Your task to perform on an android device: change the clock display to show seconds Image 0: 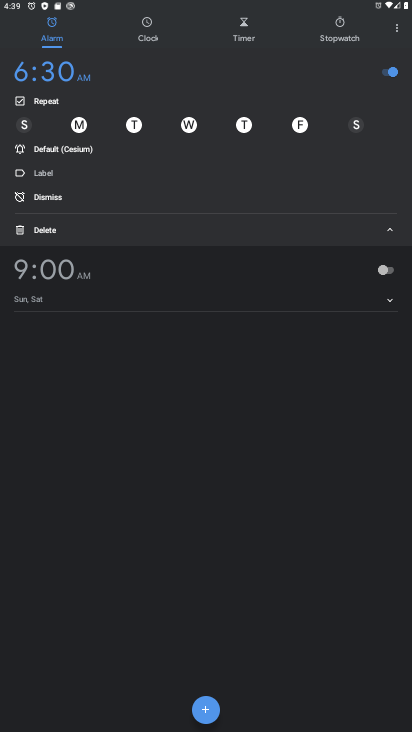
Step 0: press home button
Your task to perform on an android device: change the clock display to show seconds Image 1: 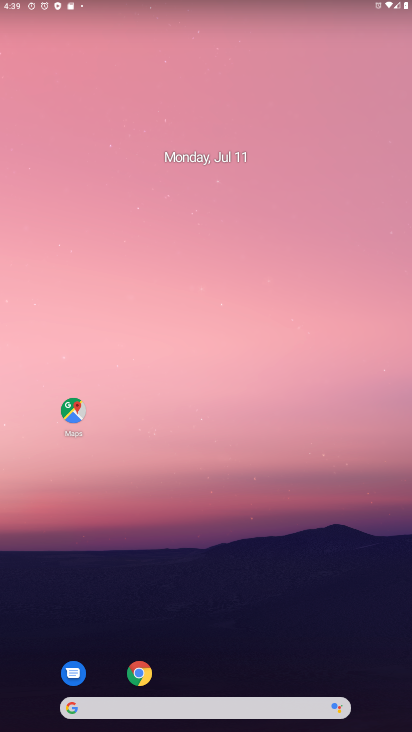
Step 1: drag from (239, 635) to (253, 233)
Your task to perform on an android device: change the clock display to show seconds Image 2: 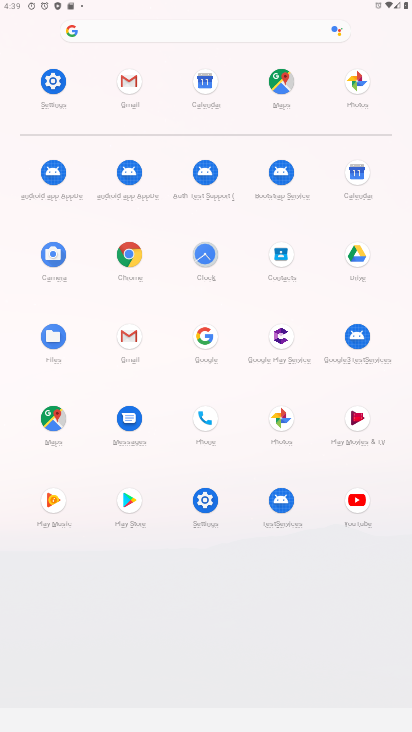
Step 2: click (206, 249)
Your task to perform on an android device: change the clock display to show seconds Image 3: 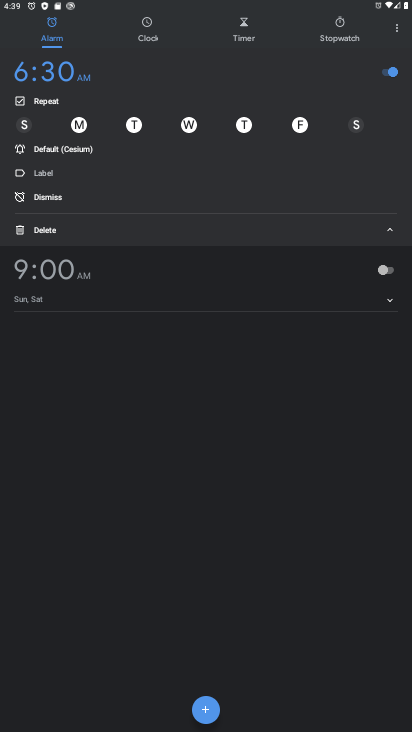
Step 3: click (396, 27)
Your task to perform on an android device: change the clock display to show seconds Image 4: 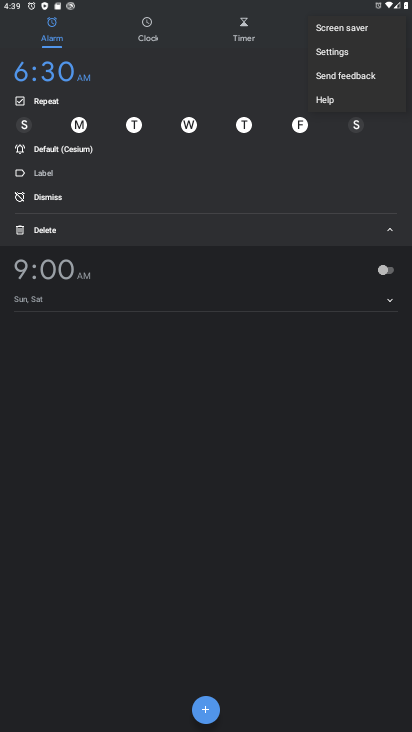
Step 4: click (335, 54)
Your task to perform on an android device: change the clock display to show seconds Image 5: 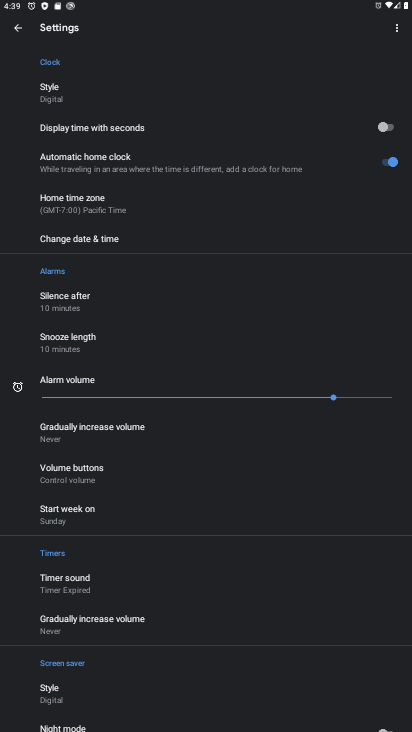
Step 5: click (58, 96)
Your task to perform on an android device: change the clock display to show seconds Image 6: 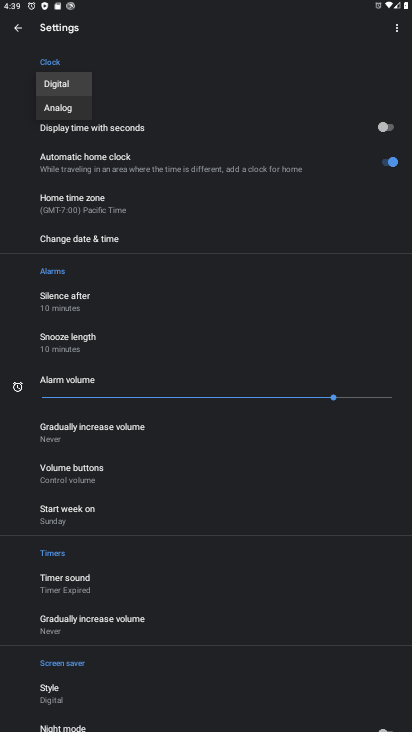
Step 6: click (61, 102)
Your task to perform on an android device: change the clock display to show seconds Image 7: 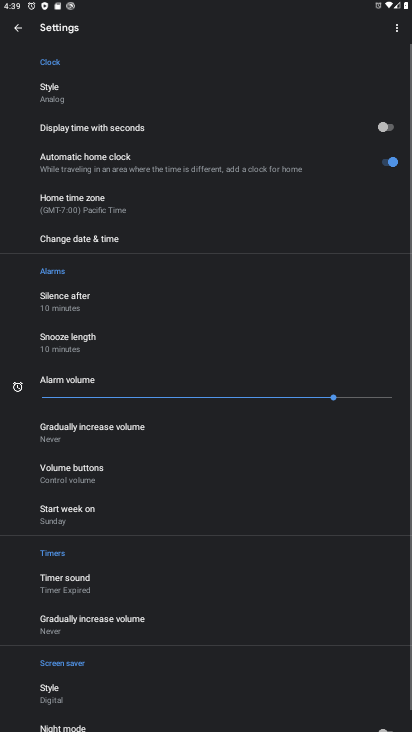
Step 7: task complete